Your task to perform on an android device: Open the map Image 0: 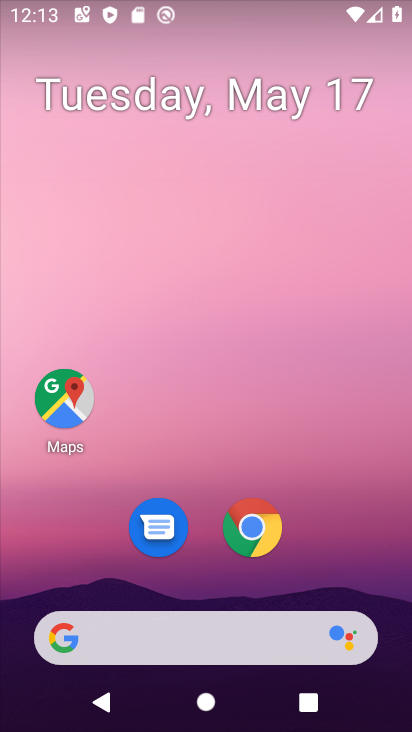
Step 0: drag from (373, 540) to (336, 47)
Your task to perform on an android device: Open the map Image 1: 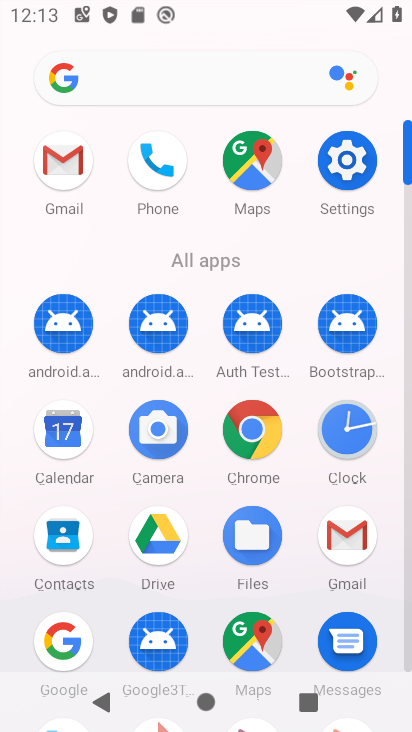
Step 1: click (244, 636)
Your task to perform on an android device: Open the map Image 2: 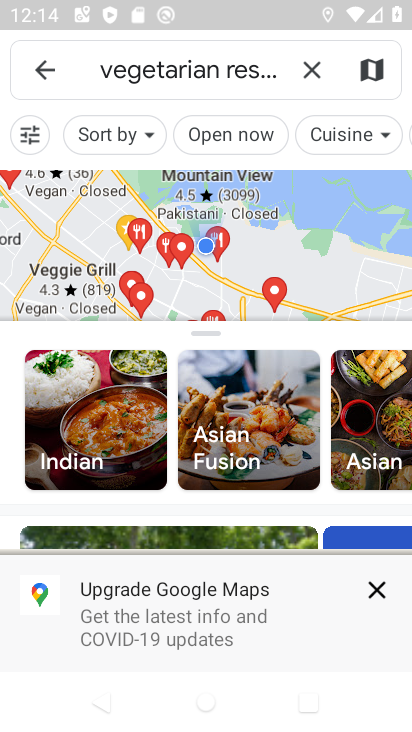
Step 2: task complete